Your task to perform on an android device: turn off javascript in the chrome app Image 0: 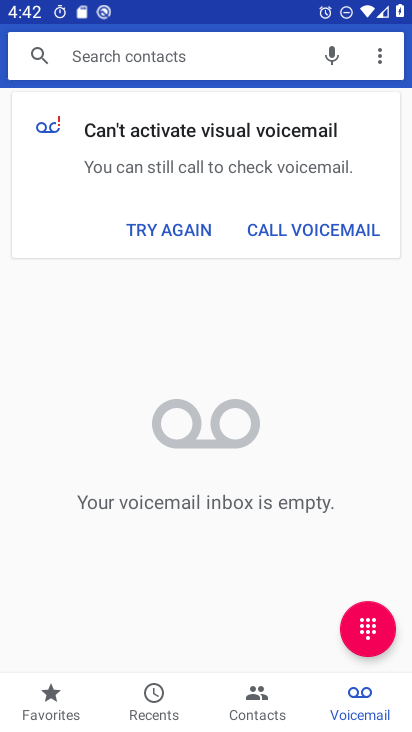
Step 0: press home button
Your task to perform on an android device: turn off javascript in the chrome app Image 1: 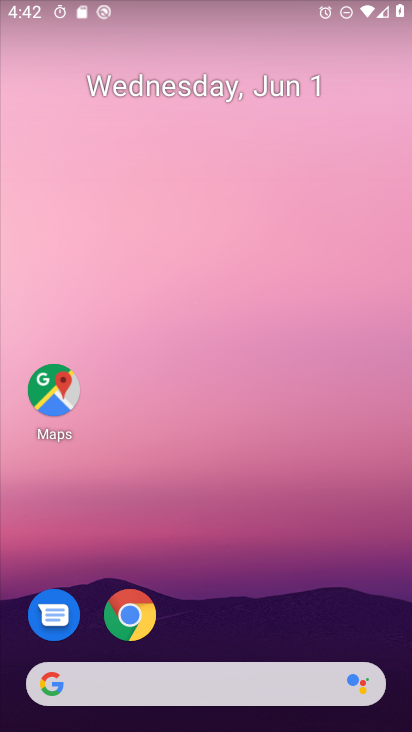
Step 1: press home button
Your task to perform on an android device: turn off javascript in the chrome app Image 2: 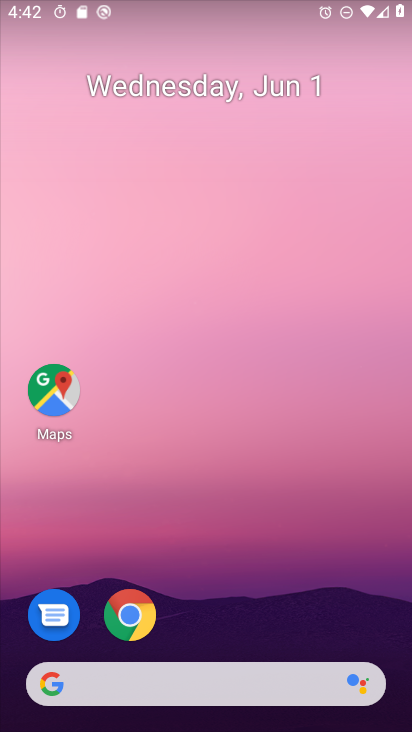
Step 2: drag from (257, 500) to (280, 45)
Your task to perform on an android device: turn off javascript in the chrome app Image 3: 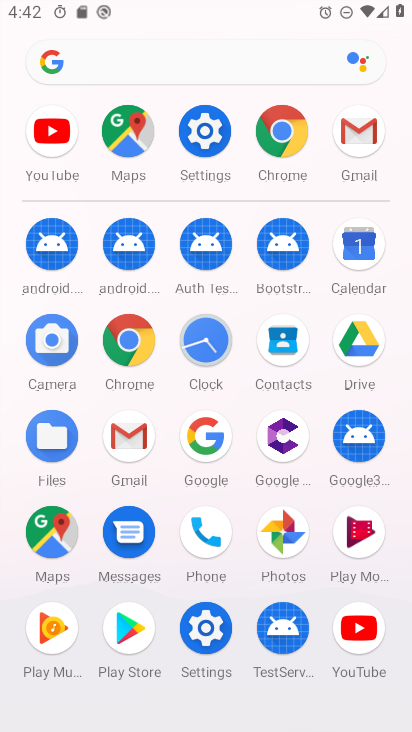
Step 3: click (308, 140)
Your task to perform on an android device: turn off javascript in the chrome app Image 4: 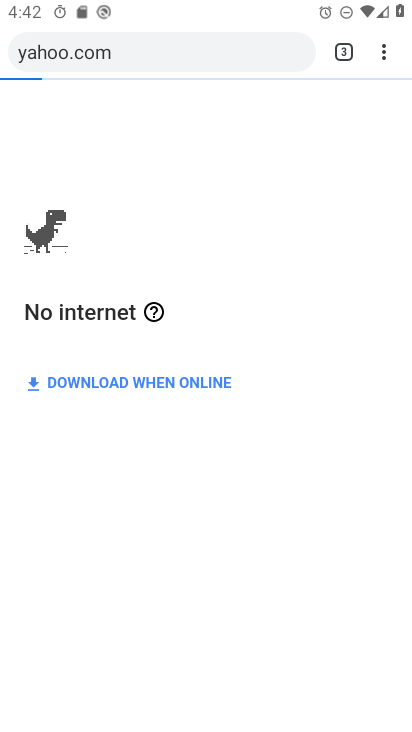
Step 4: click (382, 60)
Your task to perform on an android device: turn off javascript in the chrome app Image 5: 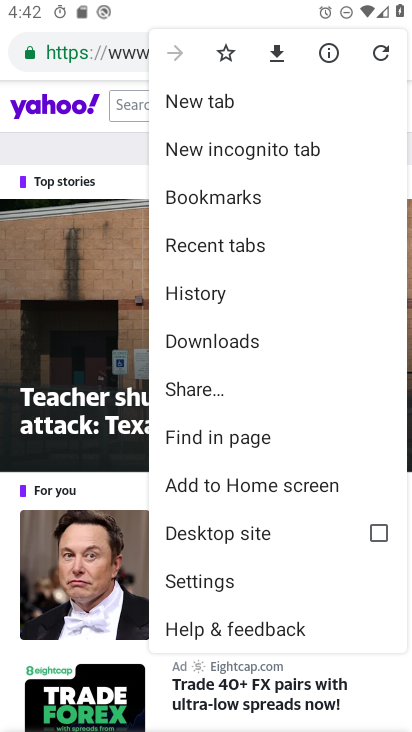
Step 5: click (231, 585)
Your task to perform on an android device: turn off javascript in the chrome app Image 6: 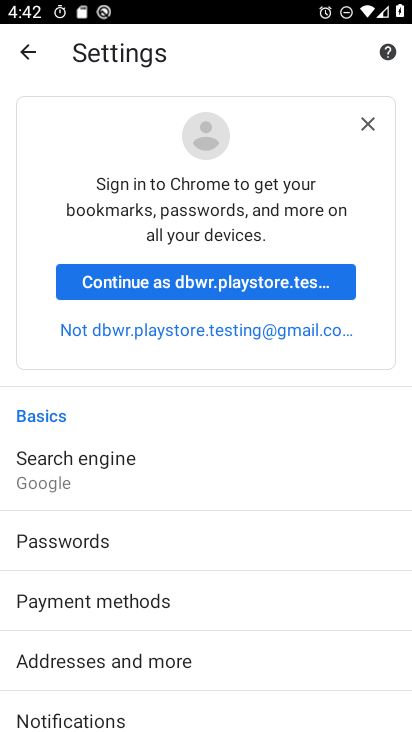
Step 6: drag from (291, 609) to (337, 322)
Your task to perform on an android device: turn off javascript in the chrome app Image 7: 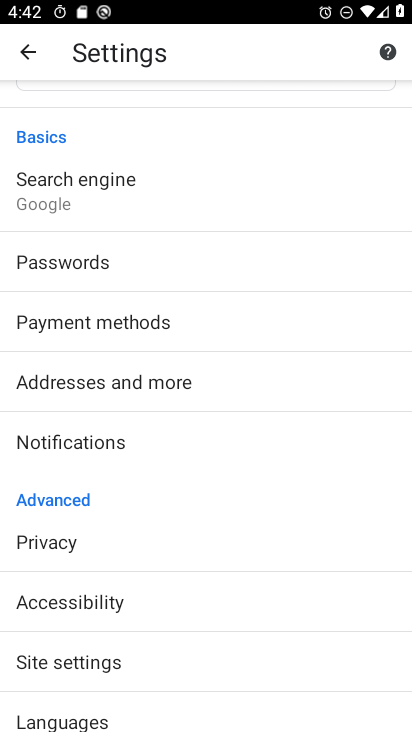
Step 7: click (217, 663)
Your task to perform on an android device: turn off javascript in the chrome app Image 8: 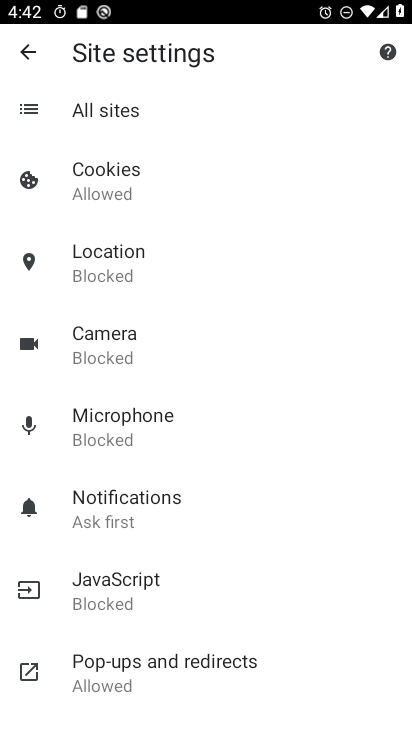
Step 8: click (140, 590)
Your task to perform on an android device: turn off javascript in the chrome app Image 9: 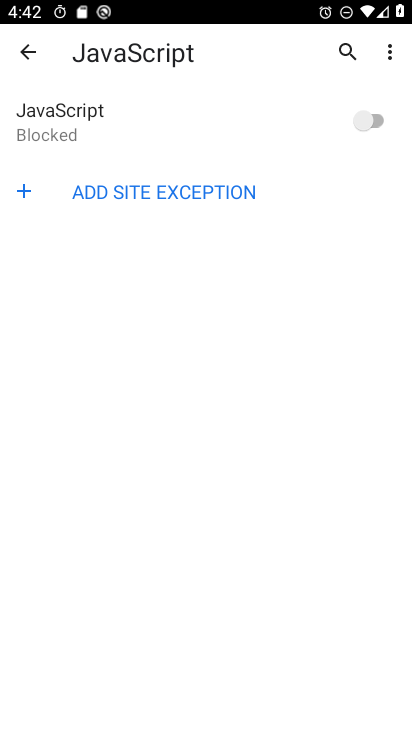
Step 9: task complete